Your task to perform on an android device: change notification settings in the gmail app Image 0: 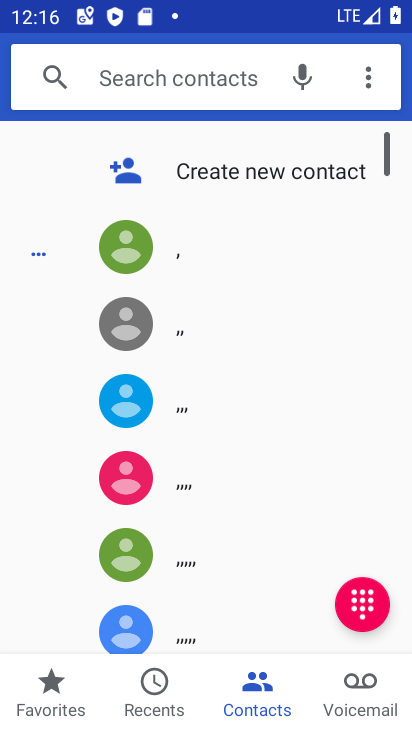
Step 0: press home button
Your task to perform on an android device: change notification settings in the gmail app Image 1: 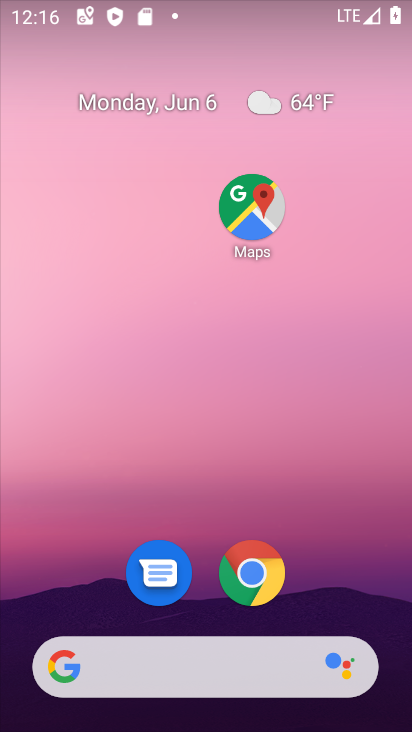
Step 1: drag from (162, 455) to (72, 86)
Your task to perform on an android device: change notification settings in the gmail app Image 2: 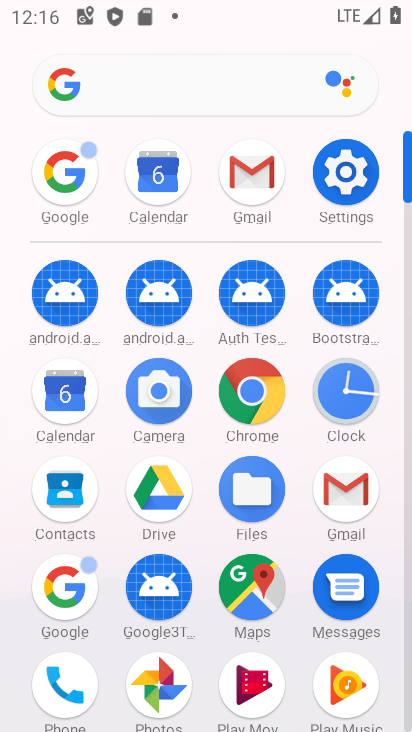
Step 2: click (331, 491)
Your task to perform on an android device: change notification settings in the gmail app Image 3: 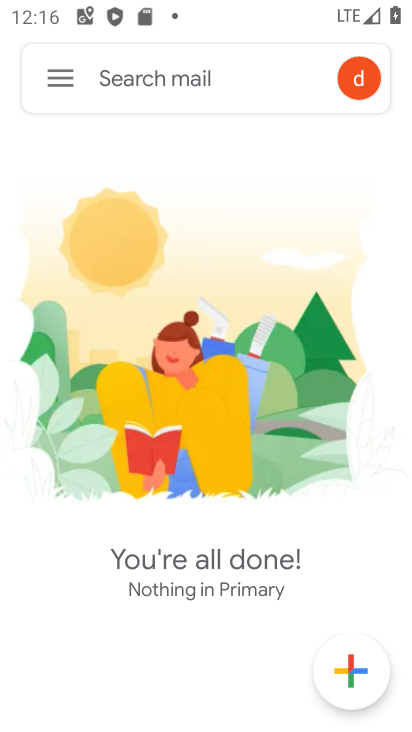
Step 3: click (75, 92)
Your task to perform on an android device: change notification settings in the gmail app Image 4: 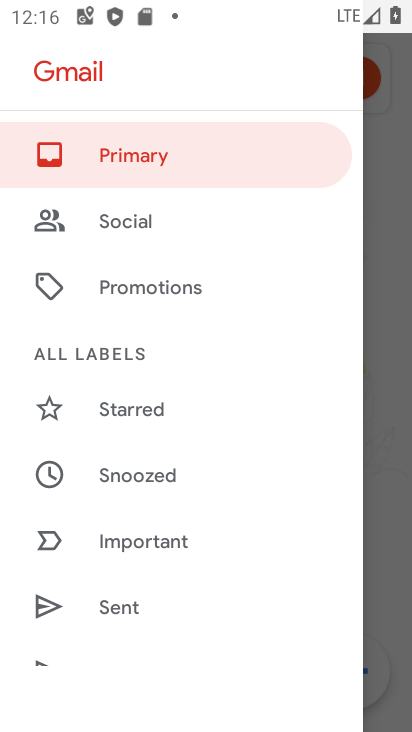
Step 4: drag from (148, 430) to (118, 201)
Your task to perform on an android device: change notification settings in the gmail app Image 5: 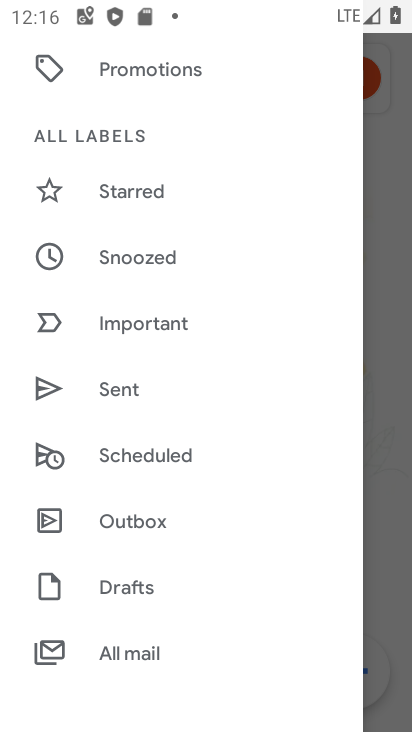
Step 5: drag from (86, 346) to (79, 294)
Your task to perform on an android device: change notification settings in the gmail app Image 6: 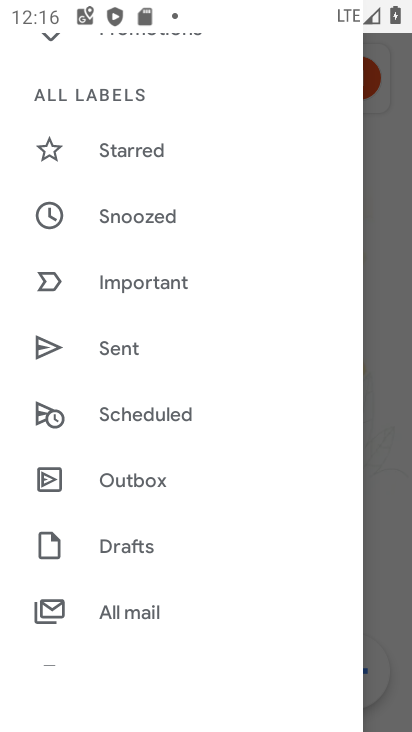
Step 6: click (113, 503)
Your task to perform on an android device: change notification settings in the gmail app Image 7: 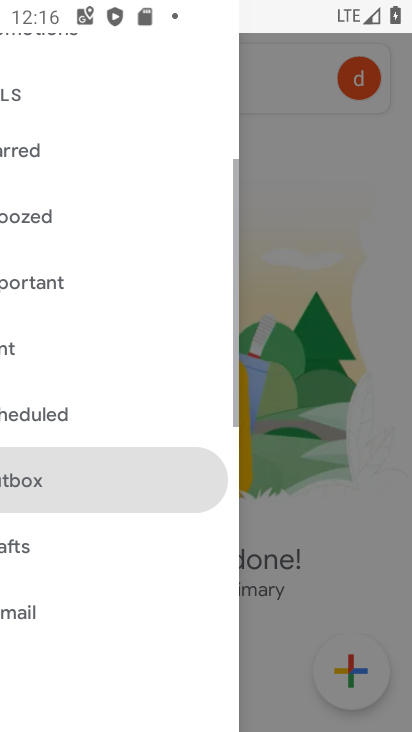
Step 7: click (282, 381)
Your task to perform on an android device: change notification settings in the gmail app Image 8: 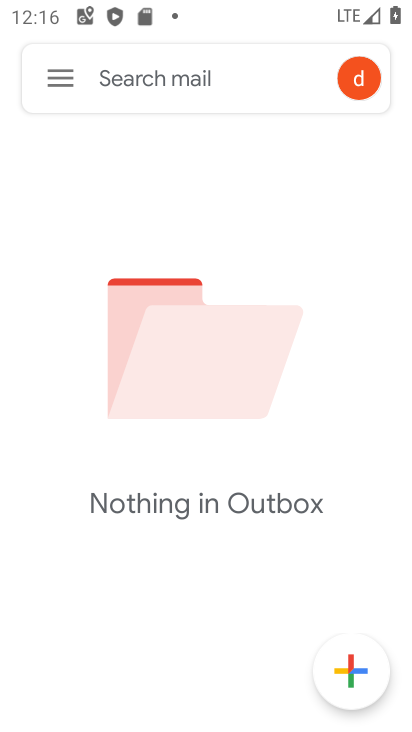
Step 8: click (61, 86)
Your task to perform on an android device: change notification settings in the gmail app Image 9: 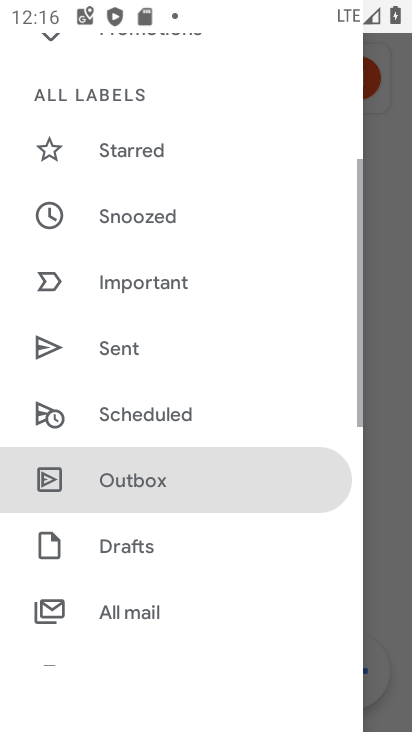
Step 9: drag from (119, 484) to (118, 52)
Your task to perform on an android device: change notification settings in the gmail app Image 10: 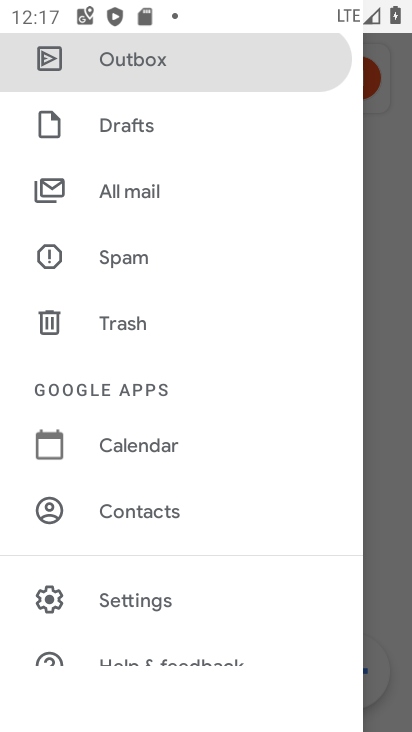
Step 10: click (143, 597)
Your task to perform on an android device: change notification settings in the gmail app Image 11: 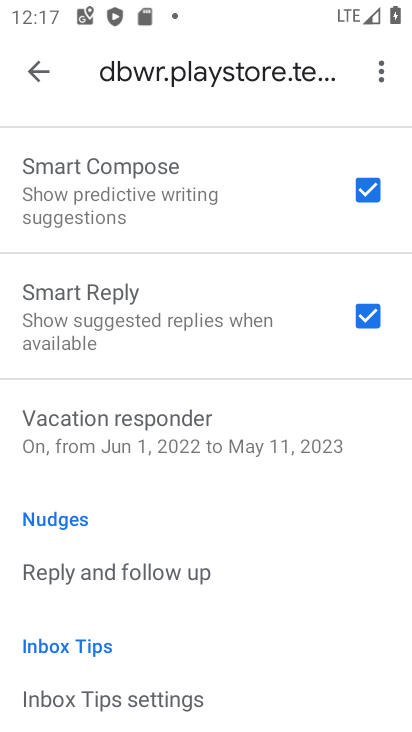
Step 11: drag from (167, 510) to (172, 7)
Your task to perform on an android device: change notification settings in the gmail app Image 12: 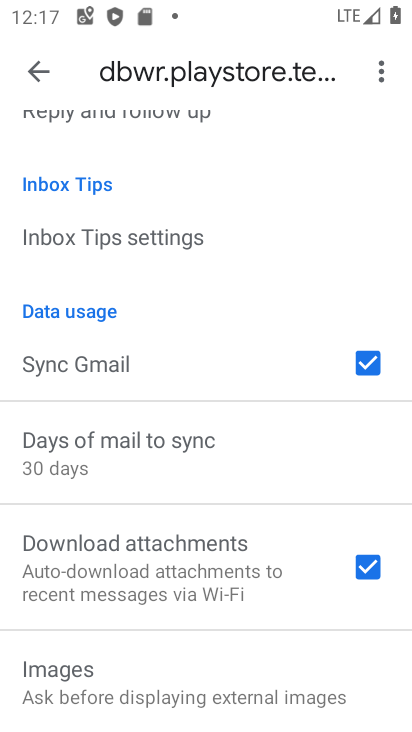
Step 12: drag from (168, 212) to (202, 599)
Your task to perform on an android device: change notification settings in the gmail app Image 13: 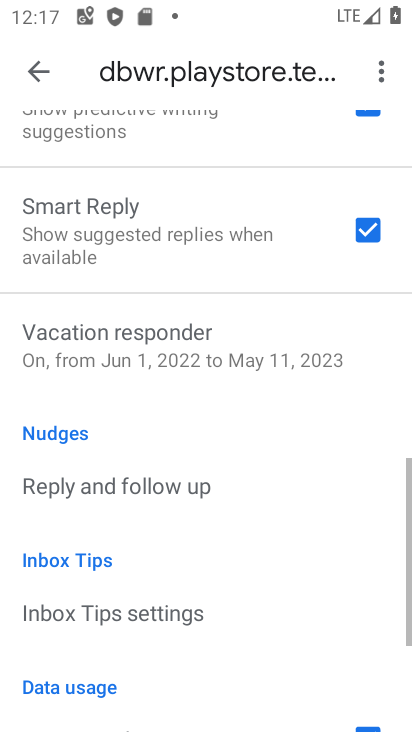
Step 13: drag from (219, 285) to (159, 639)
Your task to perform on an android device: change notification settings in the gmail app Image 14: 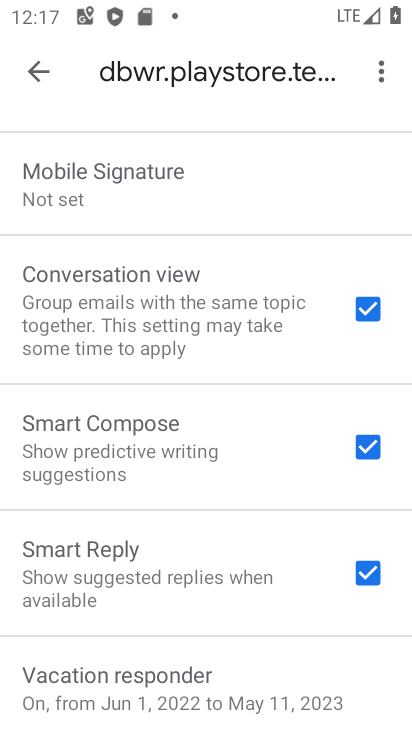
Step 14: drag from (137, 246) to (100, 564)
Your task to perform on an android device: change notification settings in the gmail app Image 15: 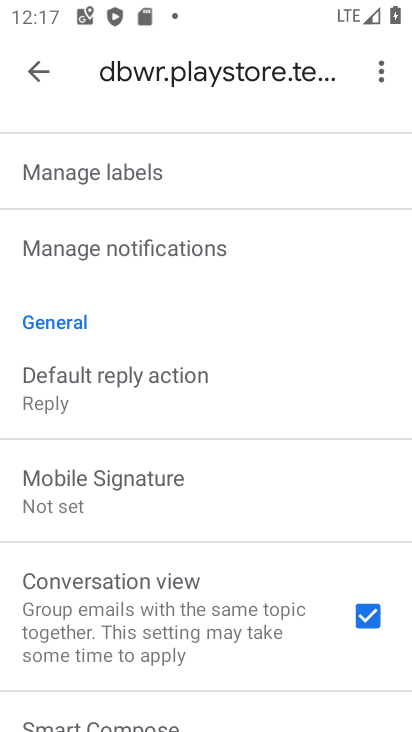
Step 15: click (142, 265)
Your task to perform on an android device: change notification settings in the gmail app Image 16: 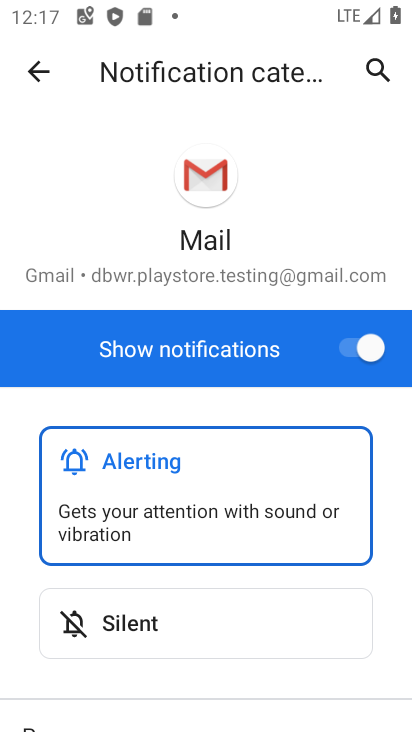
Step 16: drag from (202, 569) to (194, 164)
Your task to perform on an android device: change notification settings in the gmail app Image 17: 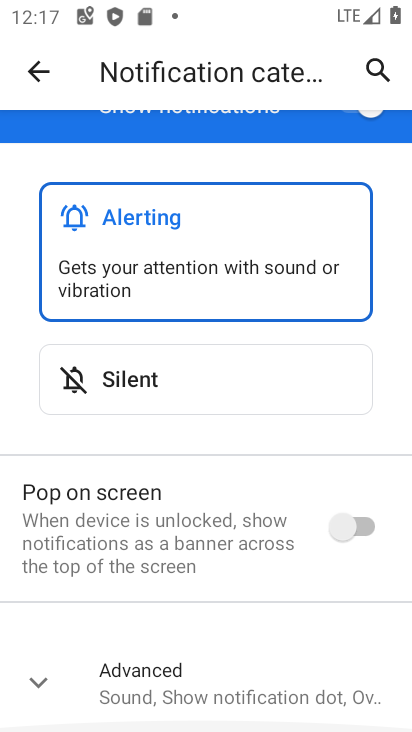
Step 17: drag from (202, 238) to (213, 580)
Your task to perform on an android device: change notification settings in the gmail app Image 18: 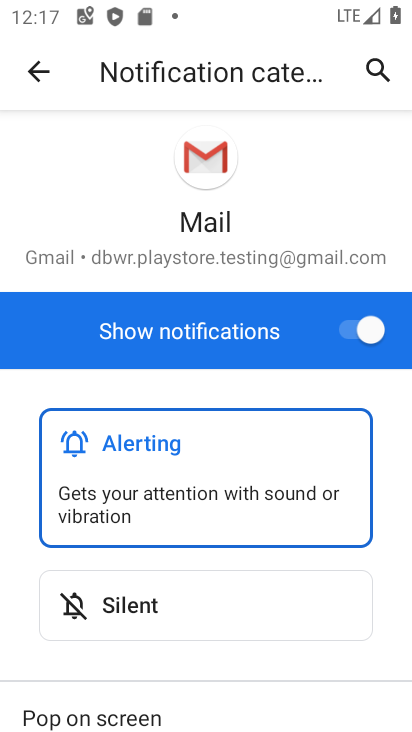
Step 18: click (356, 337)
Your task to perform on an android device: change notification settings in the gmail app Image 19: 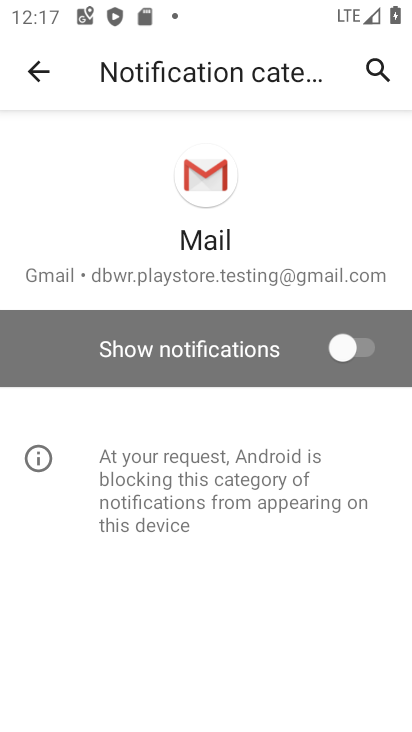
Step 19: task complete